Your task to perform on an android device: install app "Etsy: Buy & Sell Unique Items" Image 0: 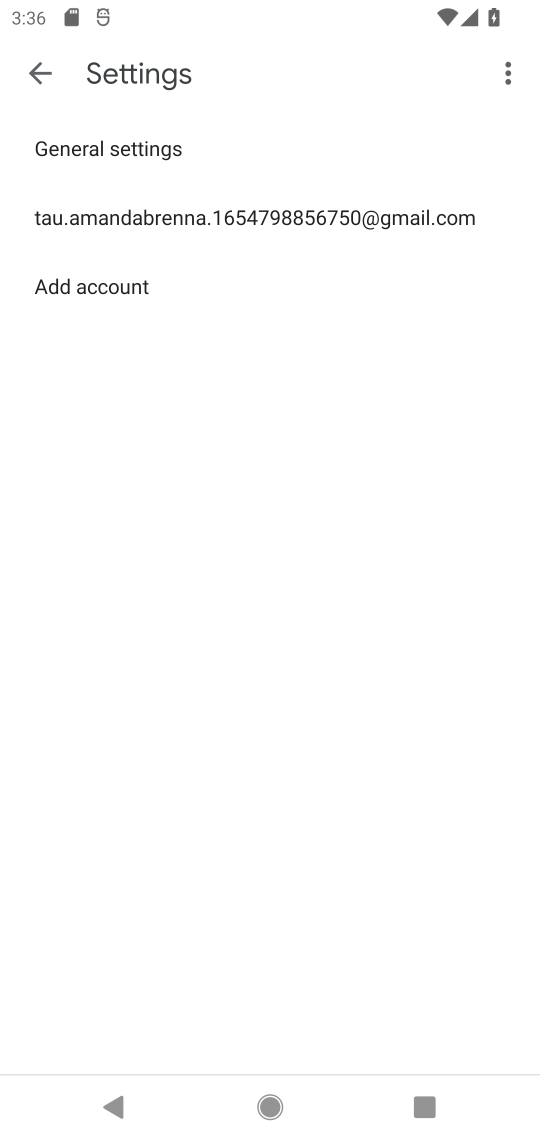
Step 0: press home button
Your task to perform on an android device: install app "Etsy: Buy & Sell Unique Items" Image 1: 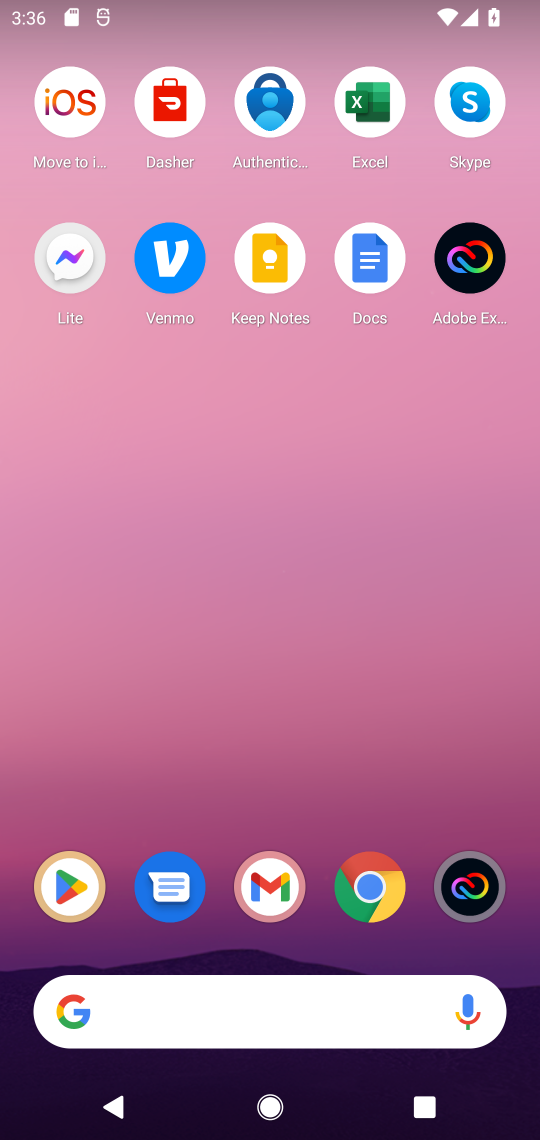
Step 1: click (85, 899)
Your task to perform on an android device: install app "Etsy: Buy & Sell Unique Items" Image 2: 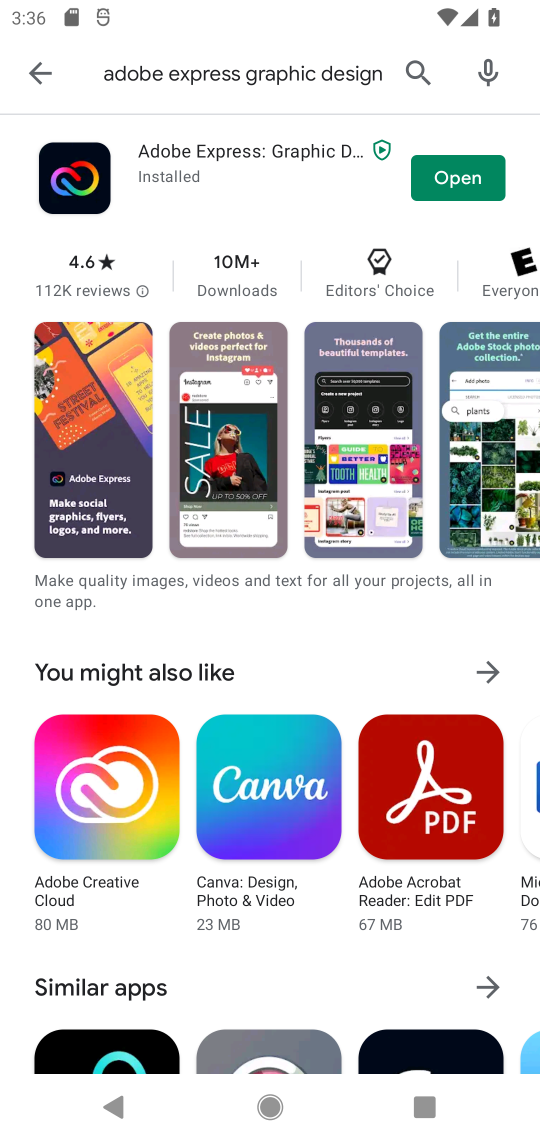
Step 2: click (32, 86)
Your task to perform on an android device: install app "Etsy: Buy & Sell Unique Items" Image 3: 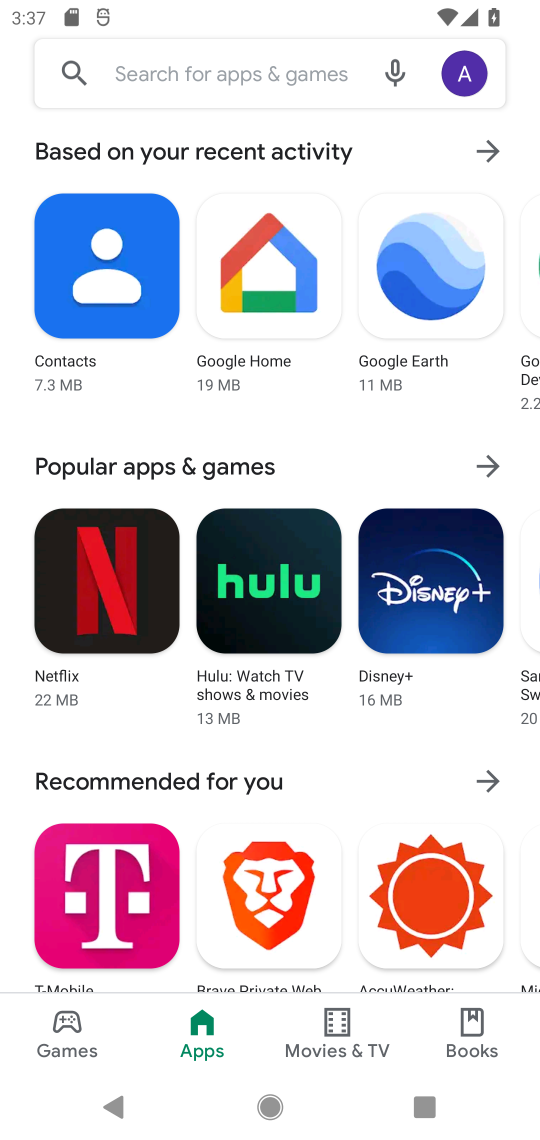
Step 3: click (132, 67)
Your task to perform on an android device: install app "Etsy: Buy & Sell Unique Items" Image 4: 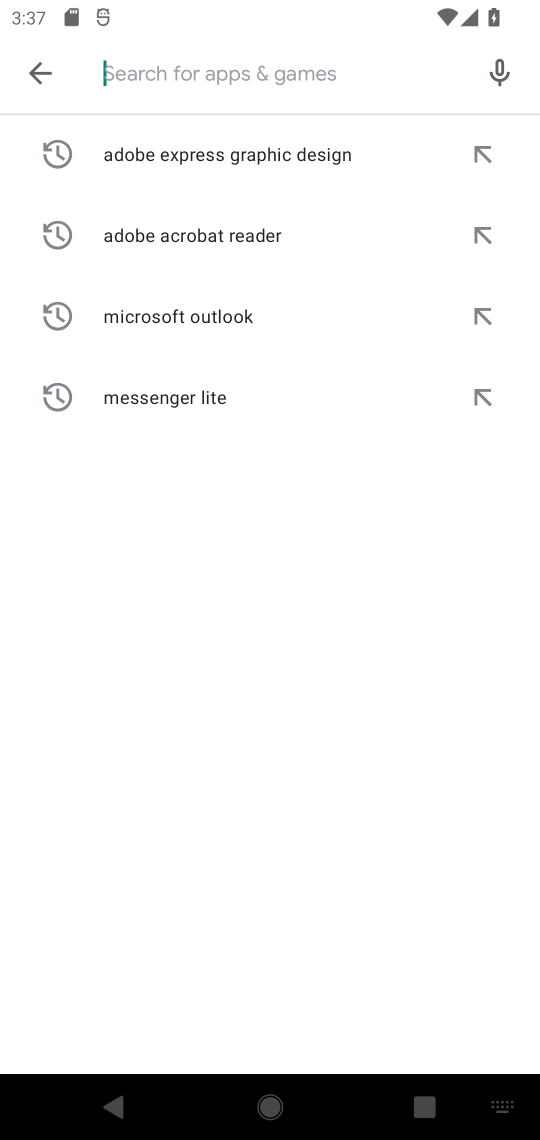
Step 4: type "Etsy: Buy & Sell Unique Items"
Your task to perform on an android device: install app "Etsy: Buy & Sell Unique Items" Image 5: 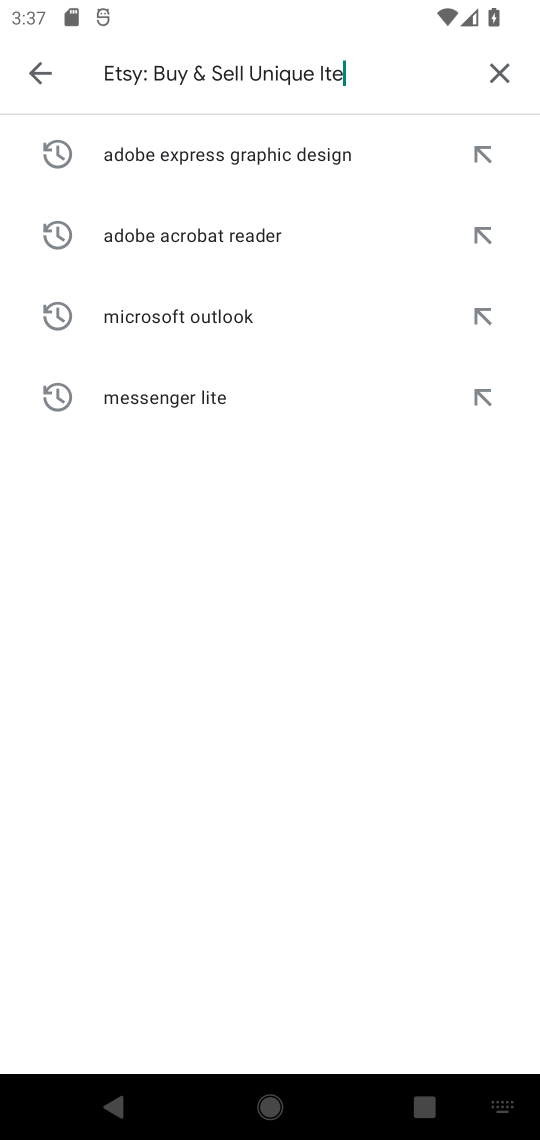
Step 5: type ""
Your task to perform on an android device: install app "Etsy: Buy & Sell Unique Items" Image 6: 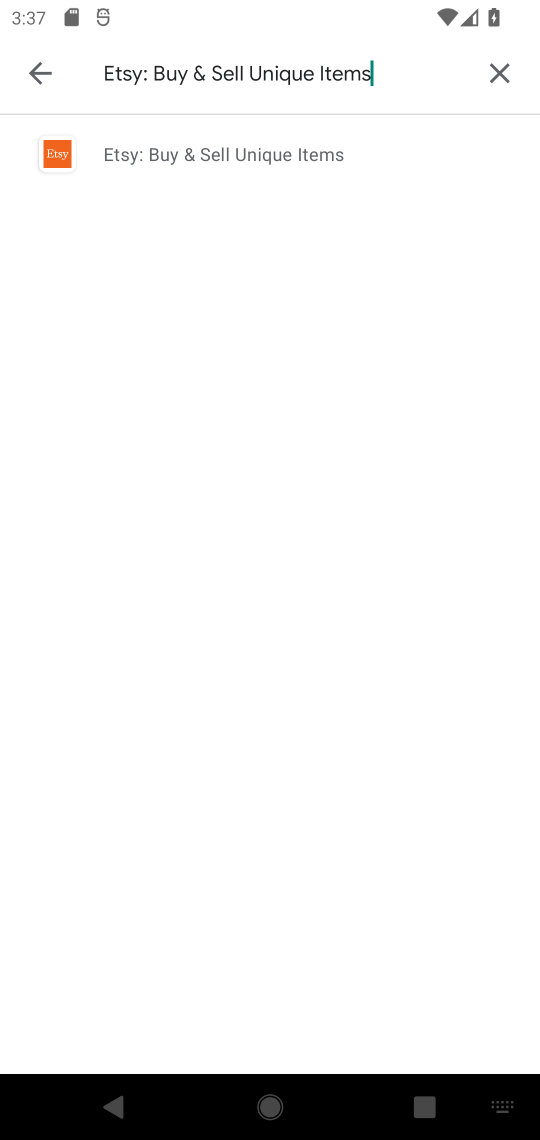
Step 6: click (234, 152)
Your task to perform on an android device: install app "Etsy: Buy & Sell Unique Items" Image 7: 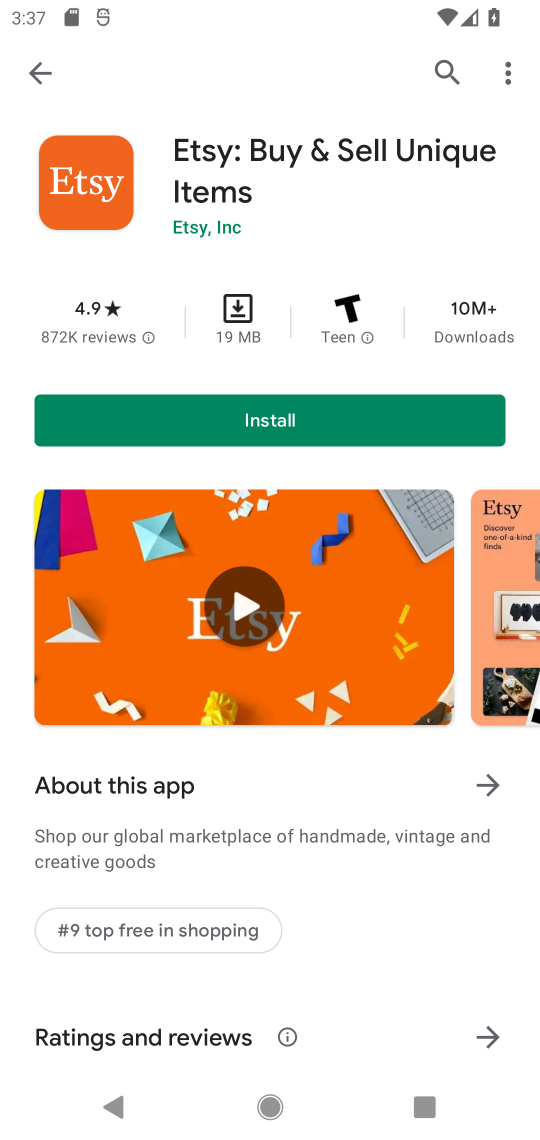
Step 7: click (221, 402)
Your task to perform on an android device: install app "Etsy: Buy & Sell Unique Items" Image 8: 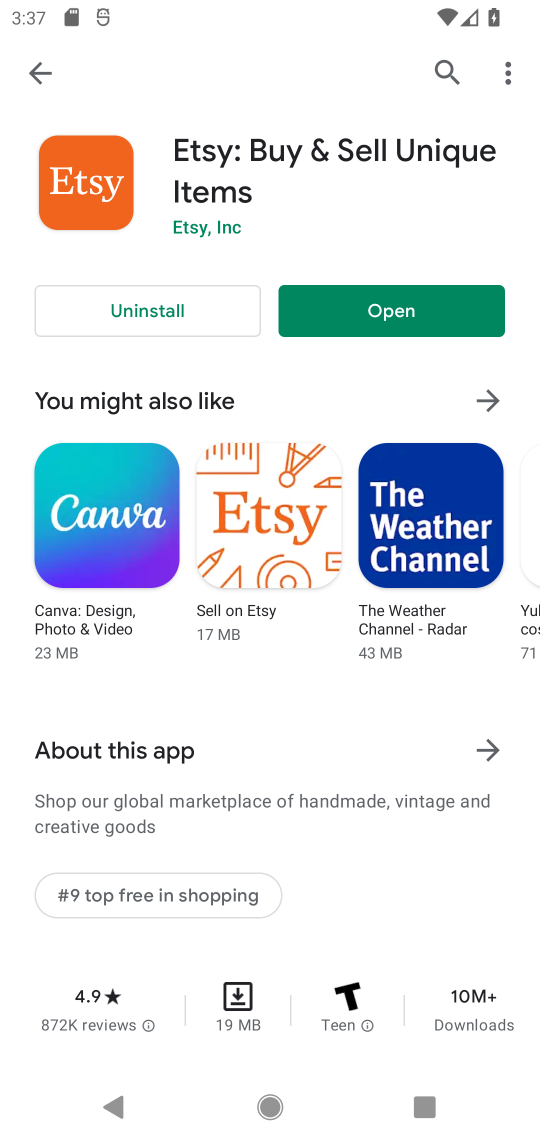
Step 8: task complete